Your task to perform on an android device: set default search engine in the chrome app Image 0: 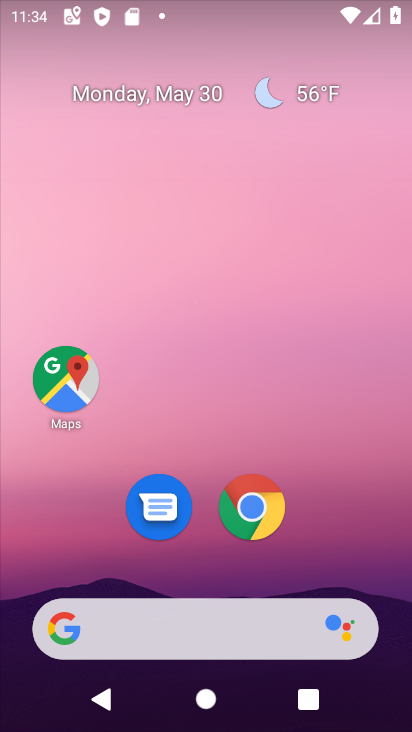
Step 0: click (273, 485)
Your task to perform on an android device: set default search engine in the chrome app Image 1: 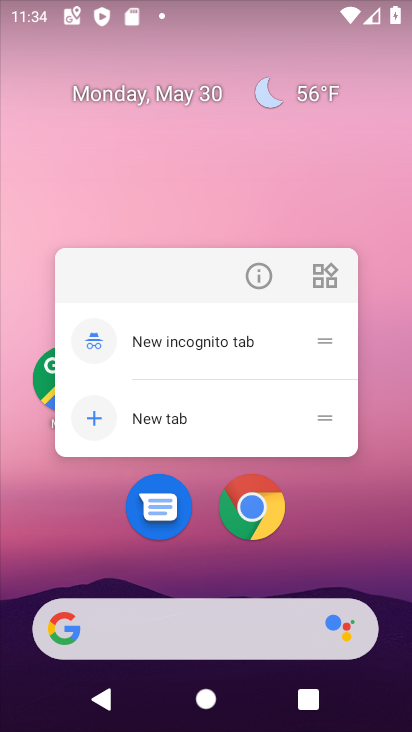
Step 1: click (269, 494)
Your task to perform on an android device: set default search engine in the chrome app Image 2: 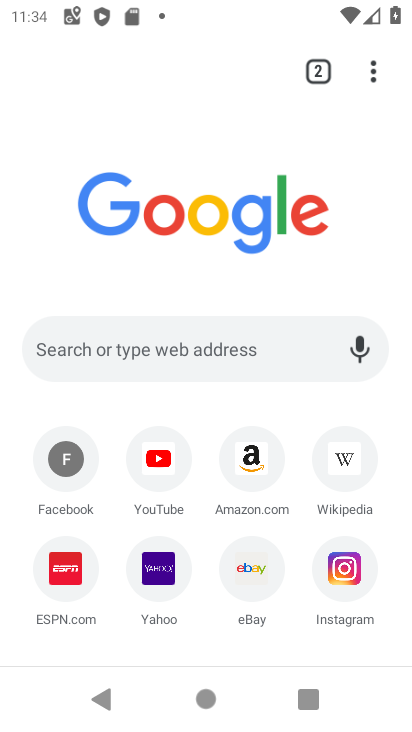
Step 2: click (379, 68)
Your task to perform on an android device: set default search engine in the chrome app Image 3: 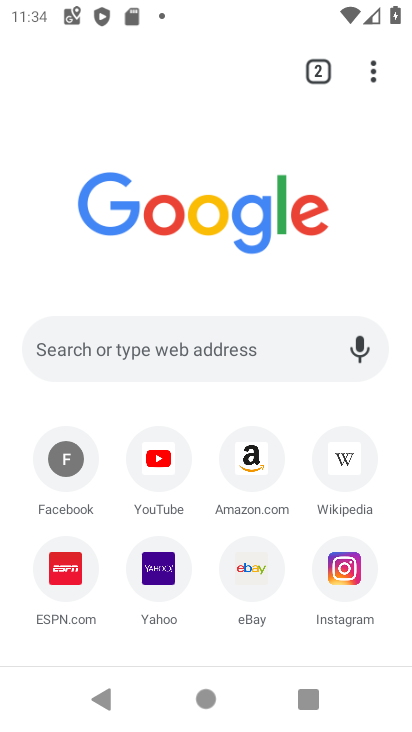
Step 3: drag from (379, 68) to (236, 483)
Your task to perform on an android device: set default search engine in the chrome app Image 4: 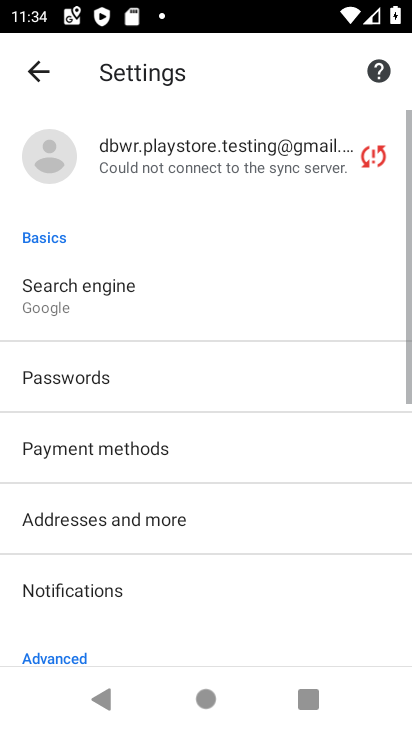
Step 4: click (37, 309)
Your task to perform on an android device: set default search engine in the chrome app Image 5: 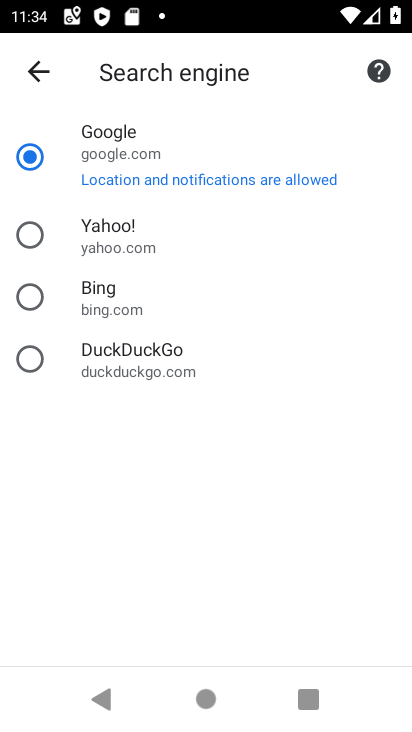
Step 5: click (98, 147)
Your task to perform on an android device: set default search engine in the chrome app Image 6: 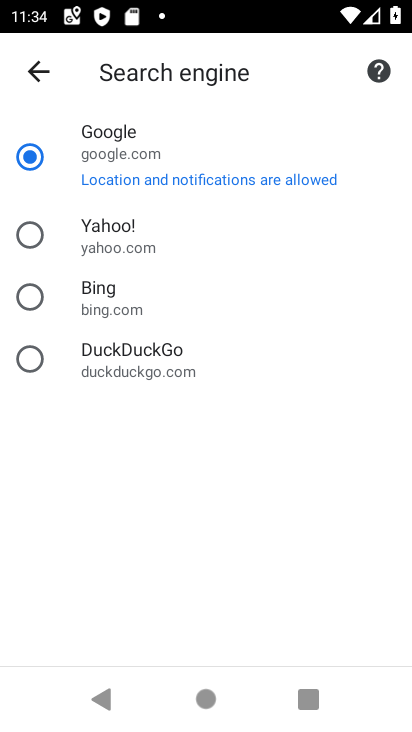
Step 6: task complete